Your task to perform on an android device: turn pop-ups off in chrome Image 0: 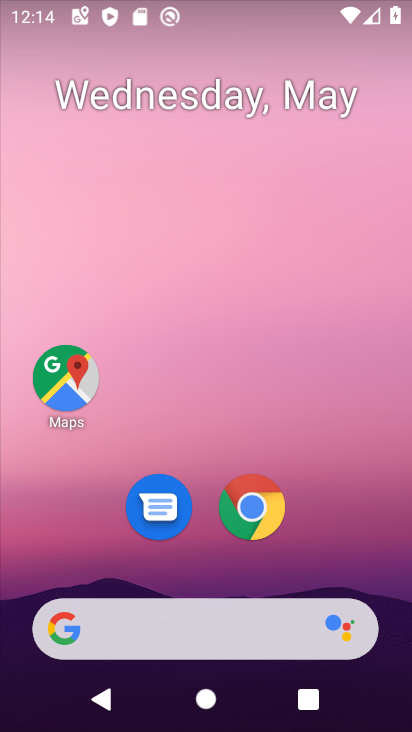
Step 0: click (256, 502)
Your task to perform on an android device: turn pop-ups off in chrome Image 1: 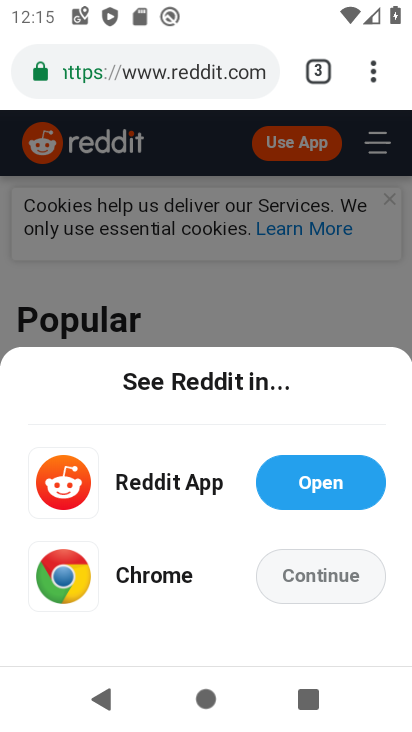
Step 1: click (367, 57)
Your task to perform on an android device: turn pop-ups off in chrome Image 2: 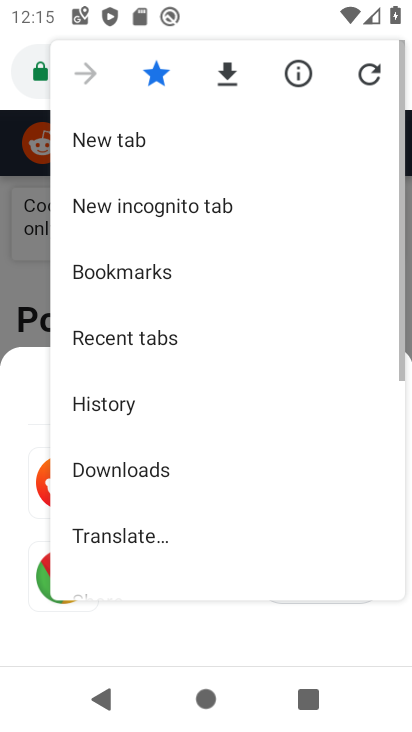
Step 2: drag from (192, 508) to (246, 262)
Your task to perform on an android device: turn pop-ups off in chrome Image 3: 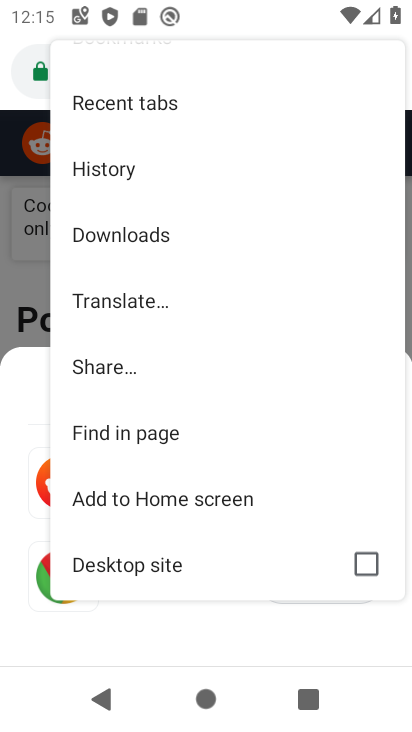
Step 3: drag from (168, 519) to (199, 298)
Your task to perform on an android device: turn pop-ups off in chrome Image 4: 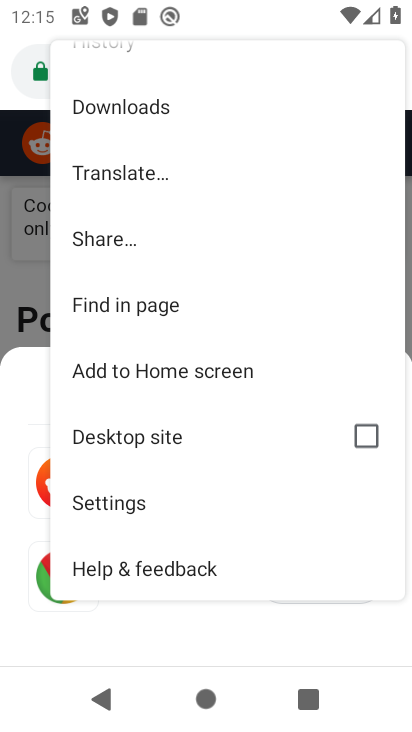
Step 4: click (150, 501)
Your task to perform on an android device: turn pop-ups off in chrome Image 5: 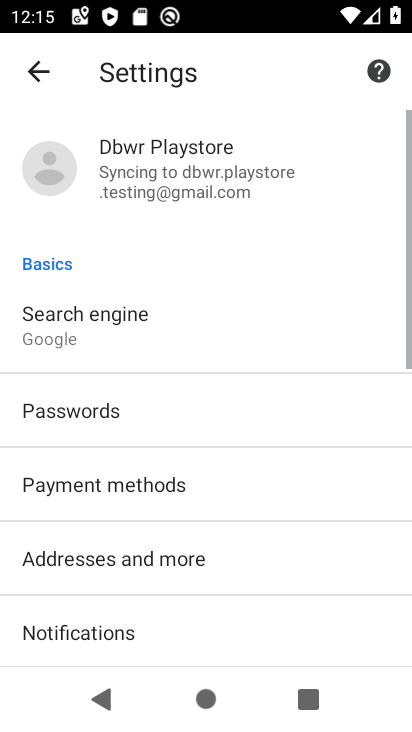
Step 5: drag from (163, 466) to (235, 160)
Your task to perform on an android device: turn pop-ups off in chrome Image 6: 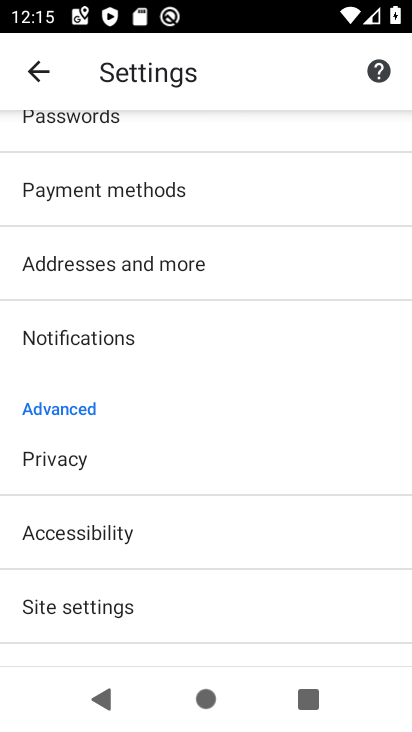
Step 6: click (104, 628)
Your task to perform on an android device: turn pop-ups off in chrome Image 7: 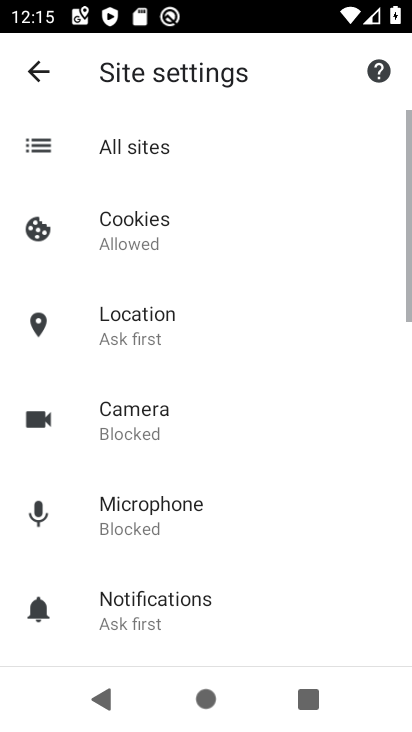
Step 7: drag from (111, 609) to (208, 171)
Your task to perform on an android device: turn pop-ups off in chrome Image 8: 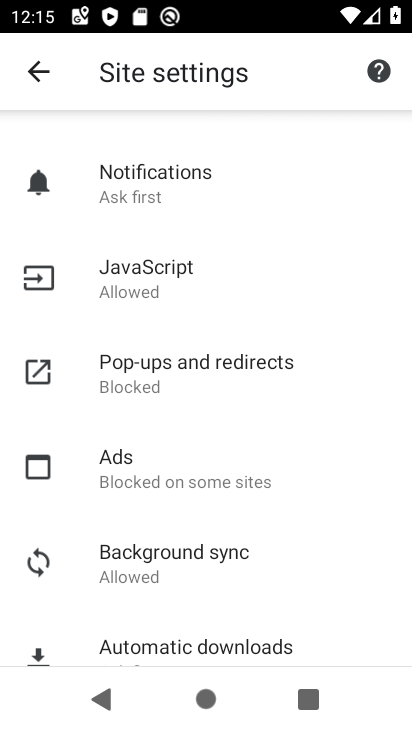
Step 8: click (195, 383)
Your task to perform on an android device: turn pop-ups off in chrome Image 9: 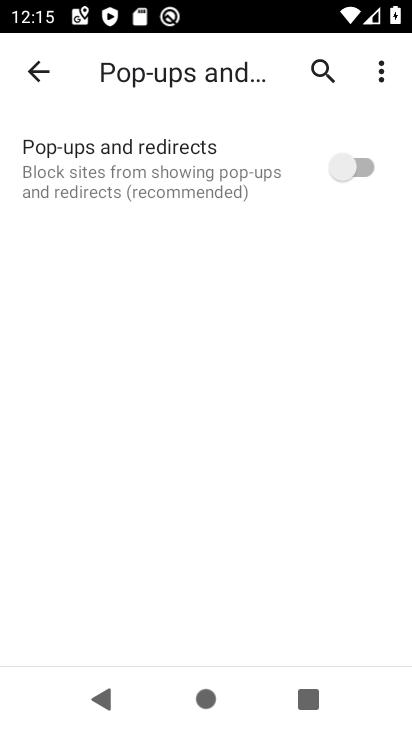
Step 9: task complete